Your task to perform on an android device: open chrome and create a bookmark for the current page Image 0: 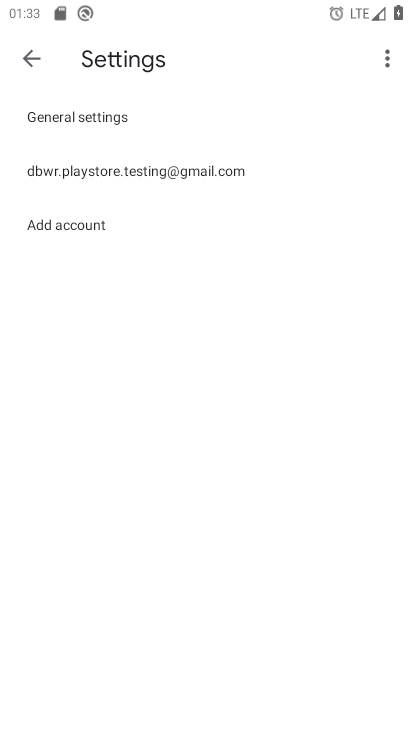
Step 0: press home button
Your task to perform on an android device: open chrome and create a bookmark for the current page Image 1: 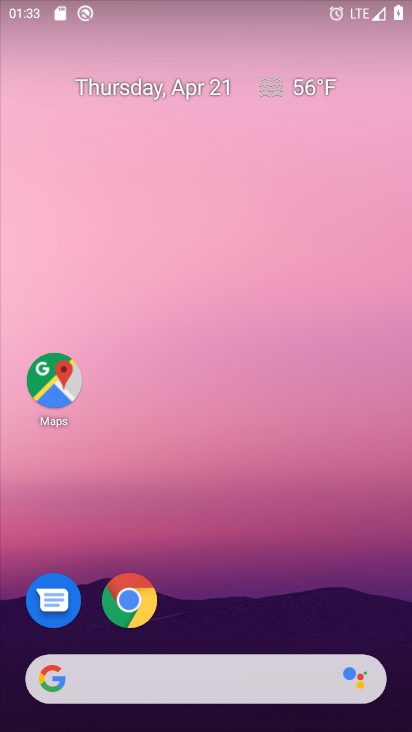
Step 1: click (142, 601)
Your task to perform on an android device: open chrome and create a bookmark for the current page Image 2: 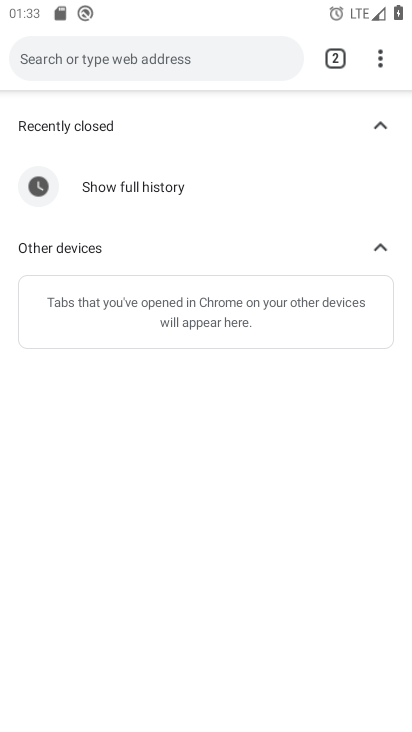
Step 2: task complete